Your task to perform on an android device: move a message to another label in the gmail app Image 0: 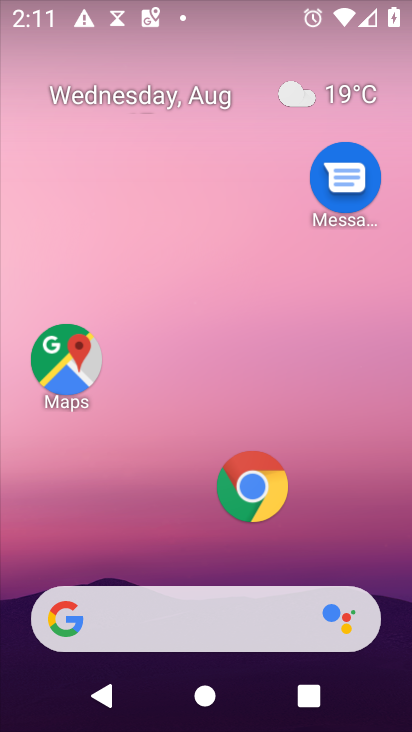
Step 0: drag from (133, 574) to (273, 86)
Your task to perform on an android device: move a message to another label in the gmail app Image 1: 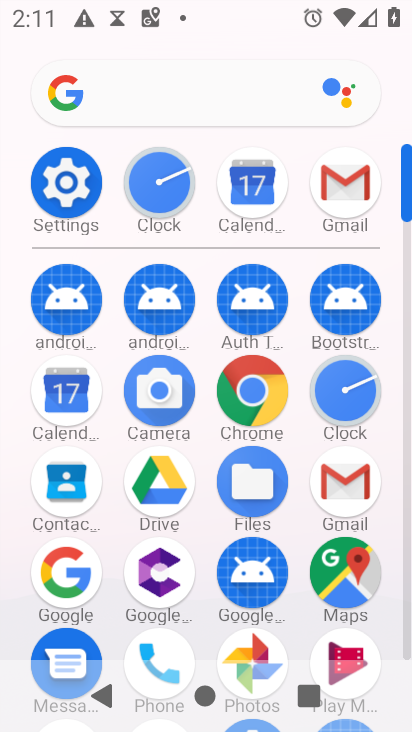
Step 1: click (341, 179)
Your task to perform on an android device: move a message to another label in the gmail app Image 2: 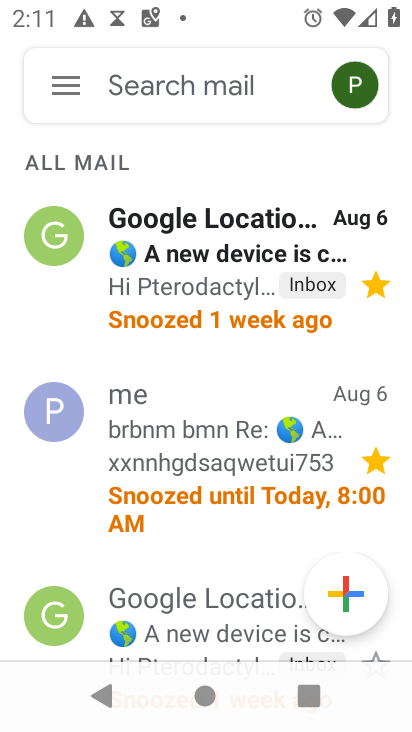
Step 2: drag from (232, 627) to (276, 246)
Your task to perform on an android device: move a message to another label in the gmail app Image 3: 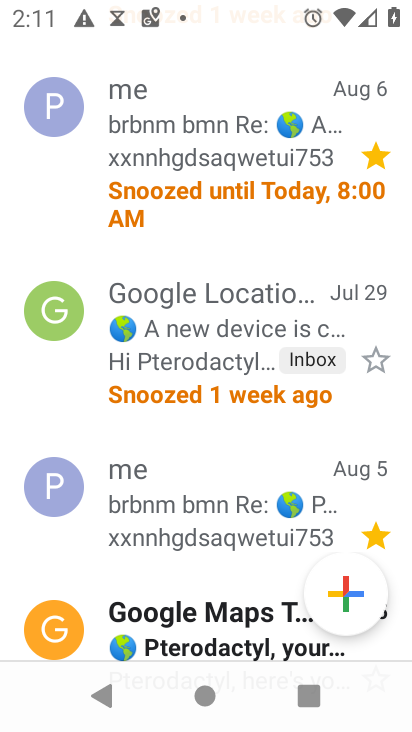
Step 3: click (212, 502)
Your task to perform on an android device: move a message to another label in the gmail app Image 4: 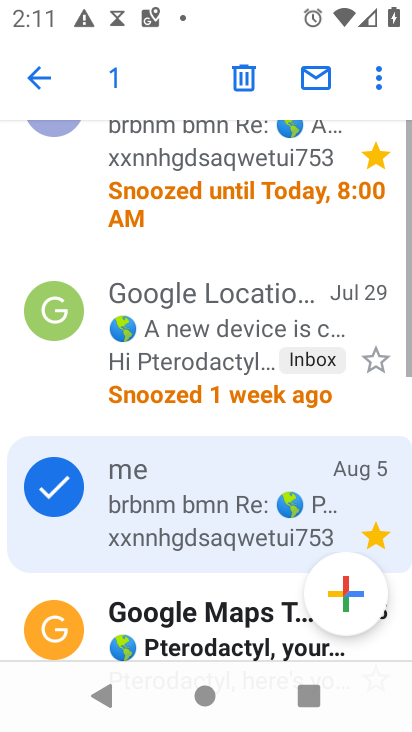
Step 4: click (377, 81)
Your task to perform on an android device: move a message to another label in the gmail app Image 5: 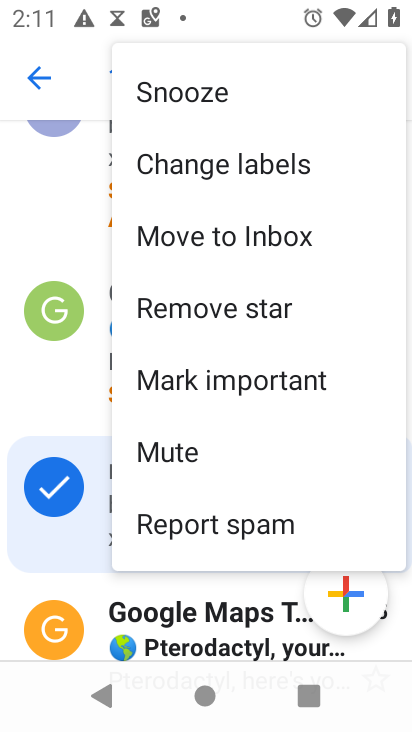
Step 5: click (269, 172)
Your task to perform on an android device: move a message to another label in the gmail app Image 6: 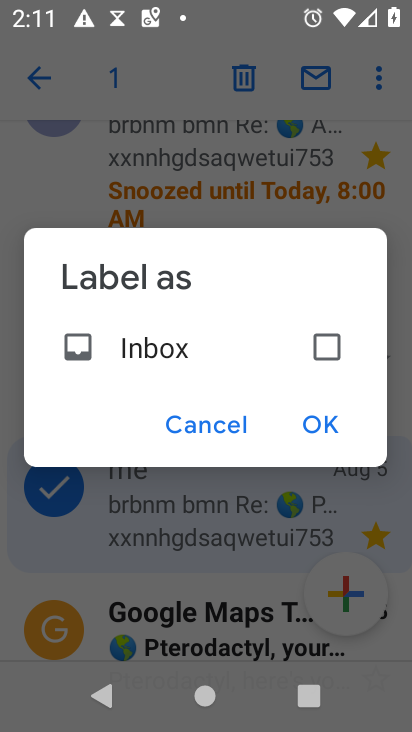
Step 6: click (315, 349)
Your task to perform on an android device: move a message to another label in the gmail app Image 7: 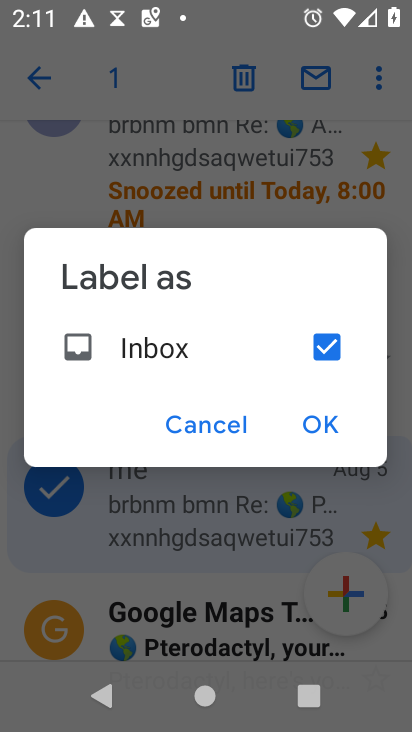
Step 7: click (313, 420)
Your task to perform on an android device: move a message to another label in the gmail app Image 8: 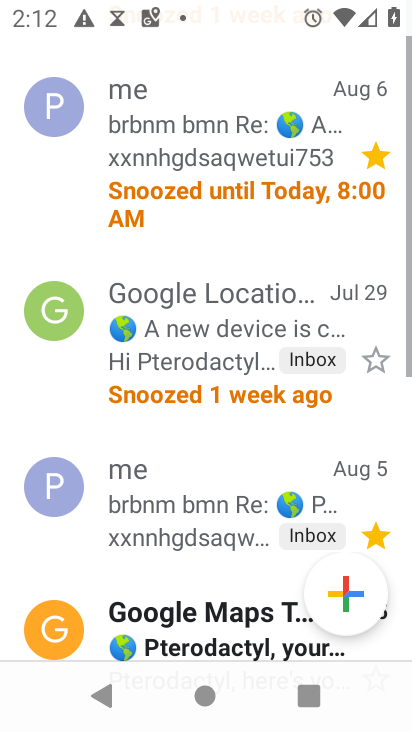
Step 8: task complete